Your task to perform on an android device: open chrome and create a bookmark for the current page Image 0: 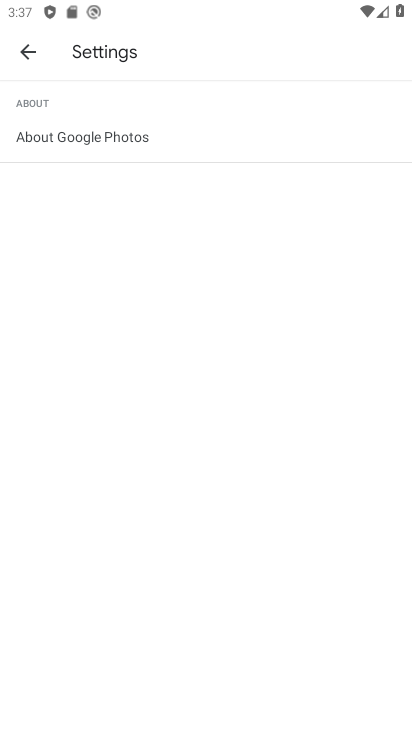
Step 0: press home button
Your task to perform on an android device: open chrome and create a bookmark for the current page Image 1: 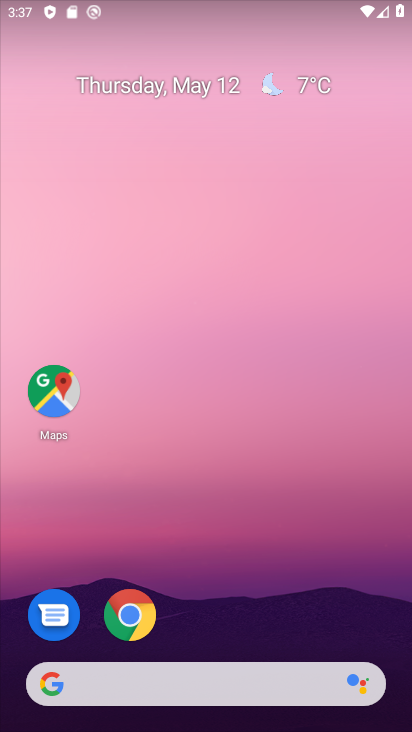
Step 1: click (128, 622)
Your task to perform on an android device: open chrome and create a bookmark for the current page Image 2: 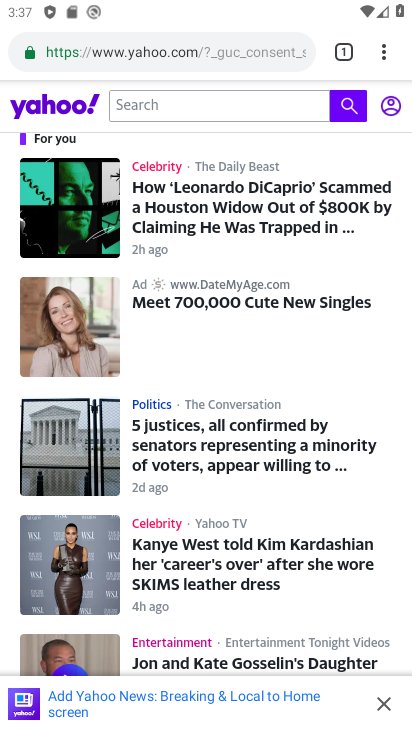
Step 2: click (380, 53)
Your task to perform on an android device: open chrome and create a bookmark for the current page Image 3: 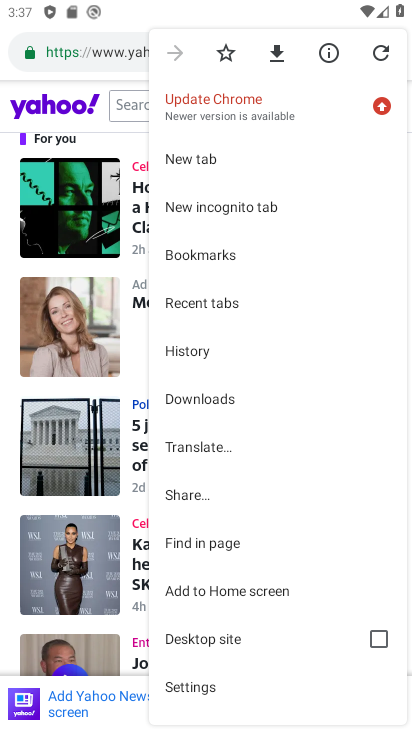
Step 3: click (223, 58)
Your task to perform on an android device: open chrome and create a bookmark for the current page Image 4: 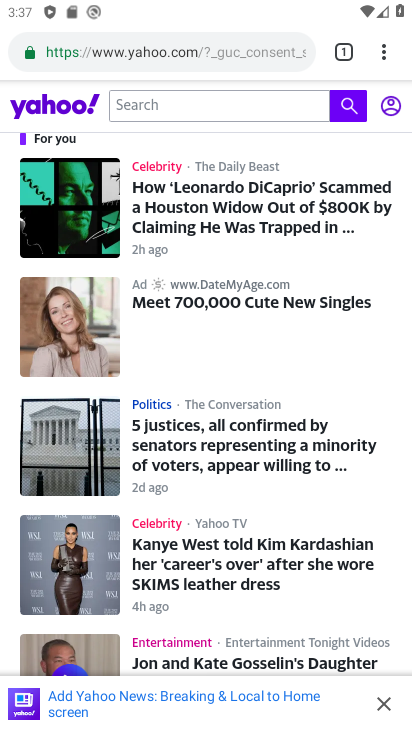
Step 4: task complete